Your task to perform on an android device: Go to Reddit.com Image 0: 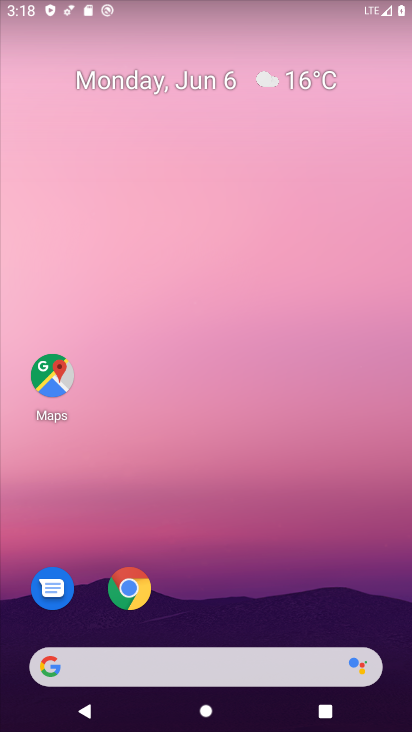
Step 0: click (130, 597)
Your task to perform on an android device: Go to Reddit.com Image 1: 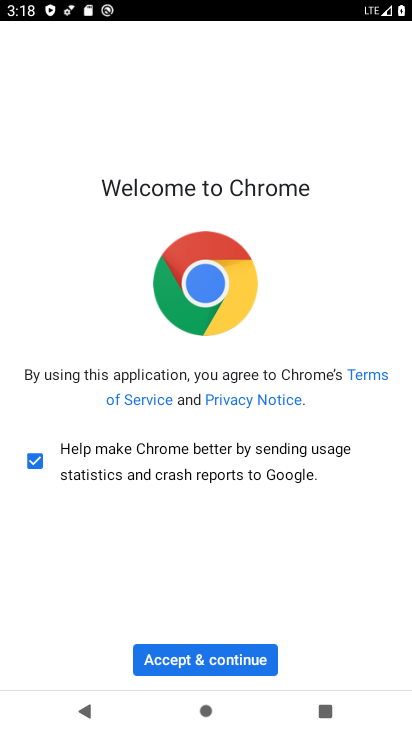
Step 1: click (216, 667)
Your task to perform on an android device: Go to Reddit.com Image 2: 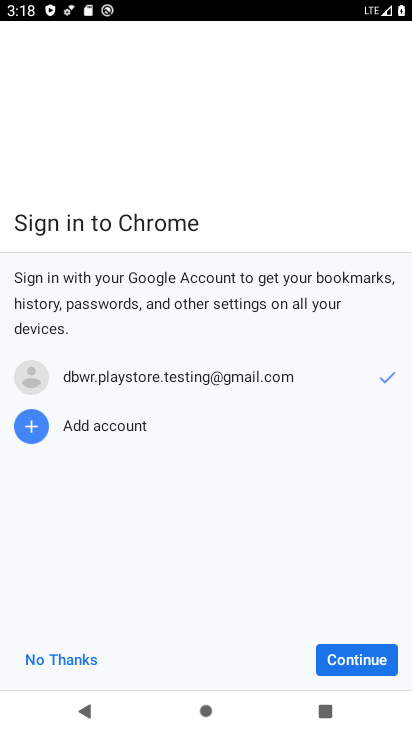
Step 2: click (348, 659)
Your task to perform on an android device: Go to Reddit.com Image 3: 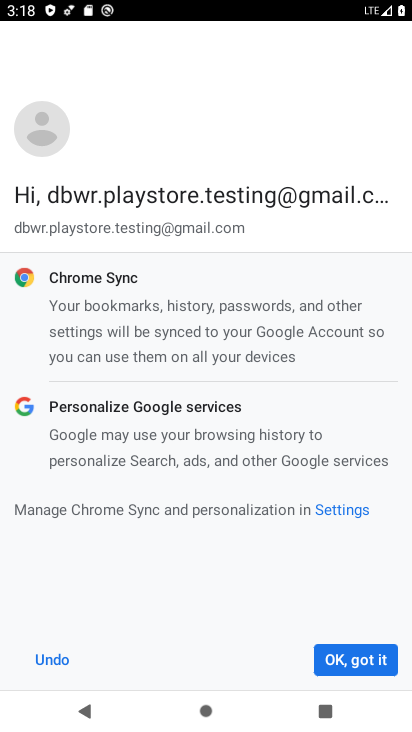
Step 3: click (352, 658)
Your task to perform on an android device: Go to Reddit.com Image 4: 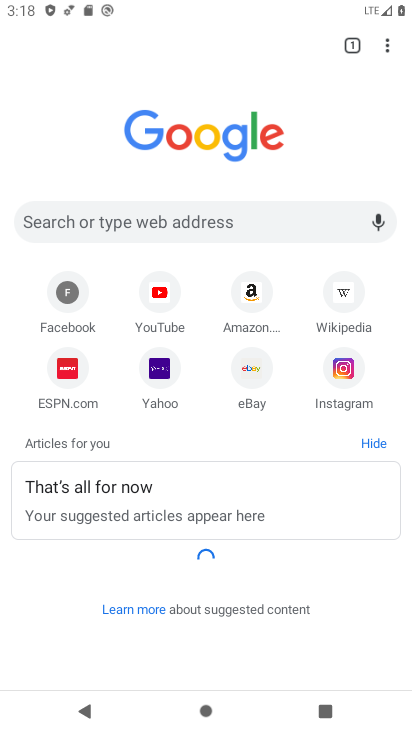
Step 4: click (176, 231)
Your task to perform on an android device: Go to Reddit.com Image 5: 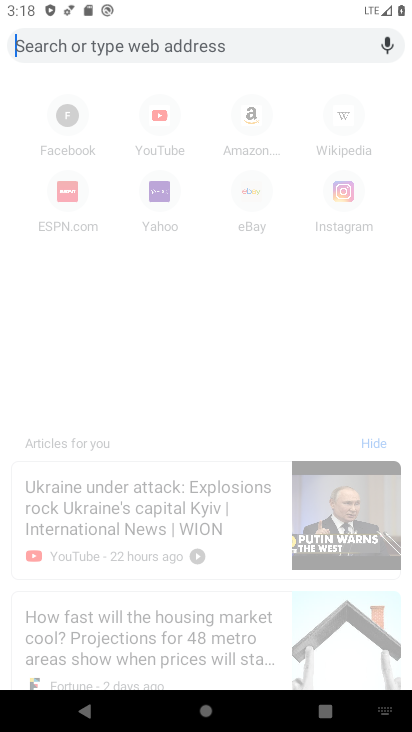
Step 5: type "reddit.com"
Your task to perform on an android device: Go to Reddit.com Image 6: 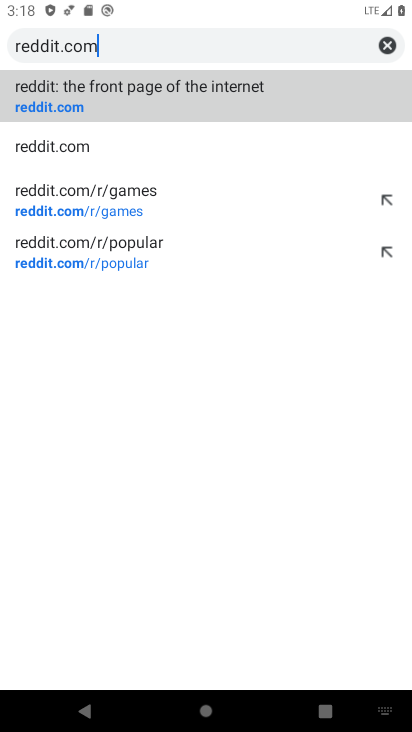
Step 6: click (61, 106)
Your task to perform on an android device: Go to Reddit.com Image 7: 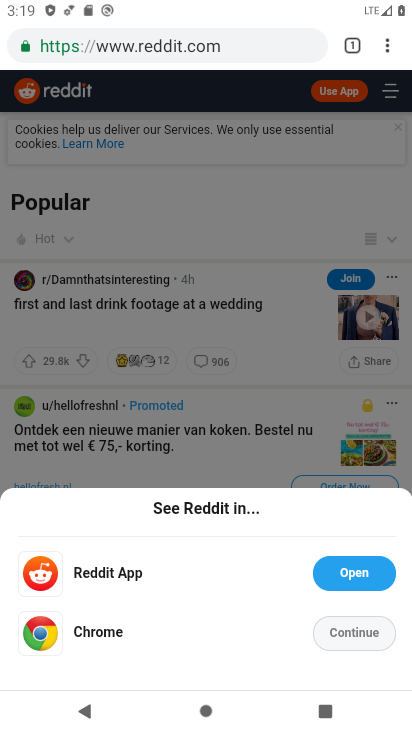
Step 7: task complete